Your task to perform on an android device: check the backup settings in the google photos Image 0: 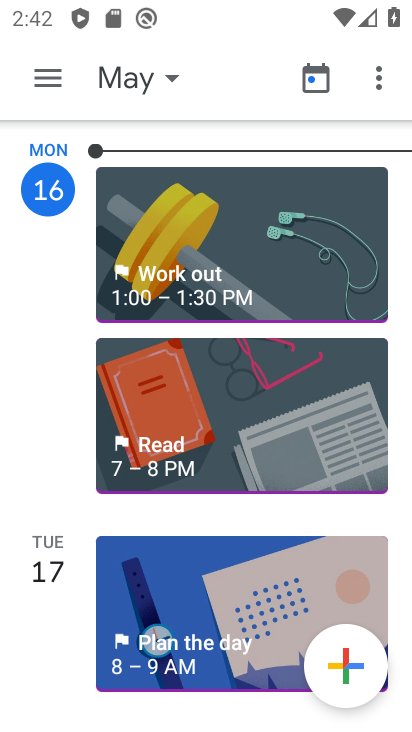
Step 0: press home button
Your task to perform on an android device: check the backup settings in the google photos Image 1: 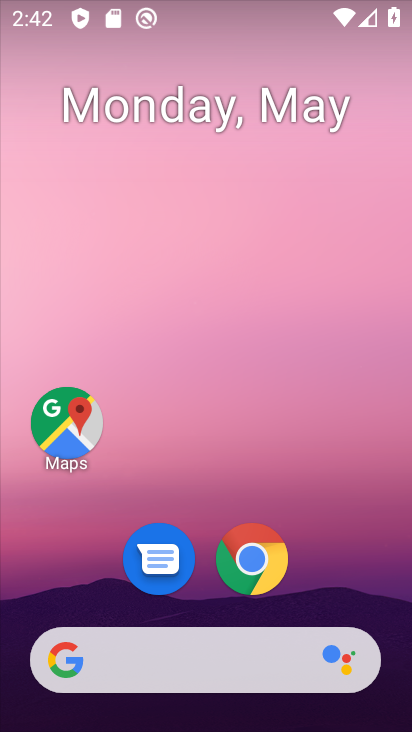
Step 1: drag from (211, 492) to (291, 186)
Your task to perform on an android device: check the backup settings in the google photos Image 2: 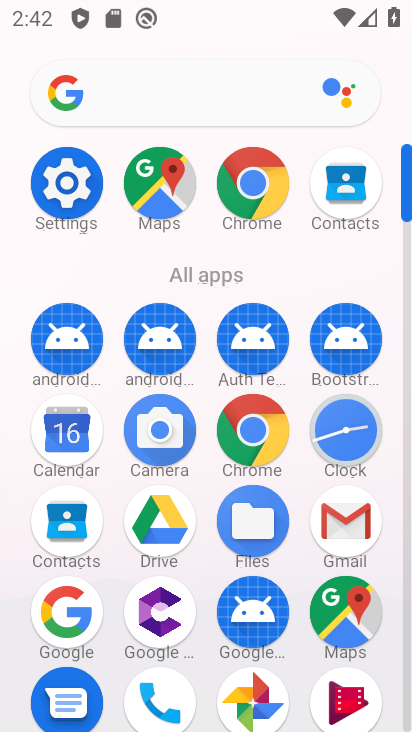
Step 2: click (264, 684)
Your task to perform on an android device: check the backup settings in the google photos Image 3: 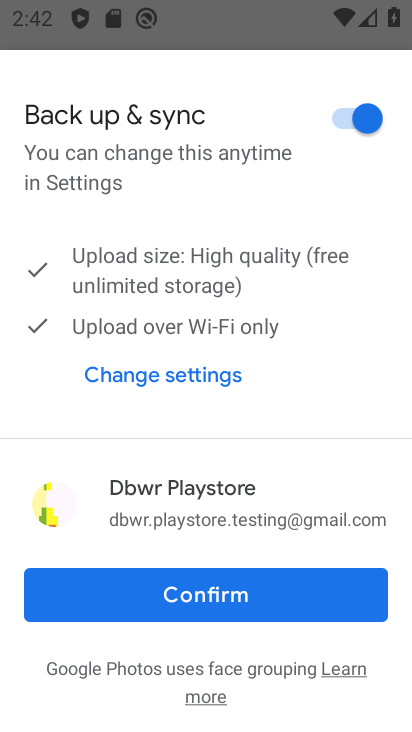
Step 3: click (260, 590)
Your task to perform on an android device: check the backup settings in the google photos Image 4: 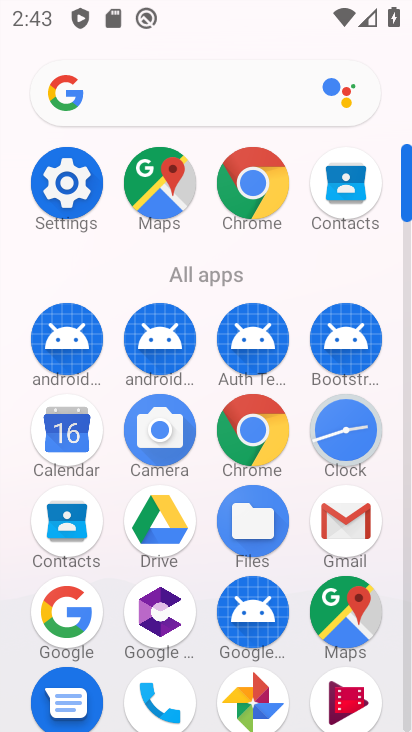
Step 4: click (271, 696)
Your task to perform on an android device: check the backup settings in the google photos Image 5: 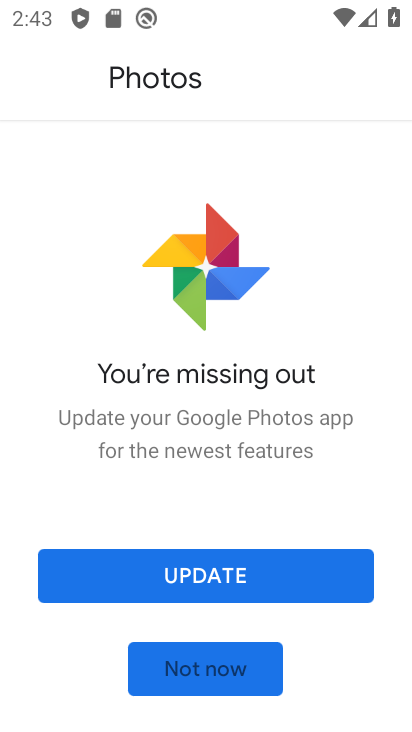
Step 5: click (236, 566)
Your task to perform on an android device: check the backup settings in the google photos Image 6: 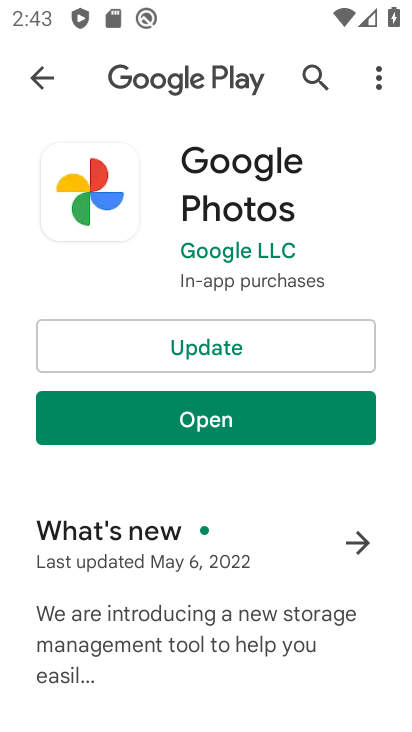
Step 6: click (229, 347)
Your task to perform on an android device: check the backup settings in the google photos Image 7: 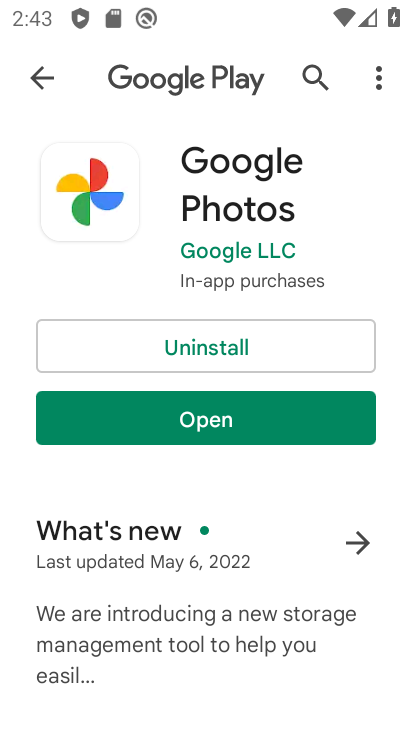
Step 7: click (309, 414)
Your task to perform on an android device: check the backup settings in the google photos Image 8: 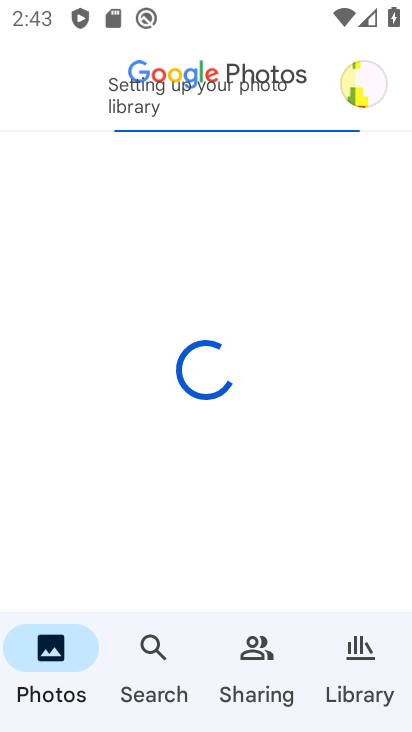
Step 8: click (309, 414)
Your task to perform on an android device: check the backup settings in the google photos Image 9: 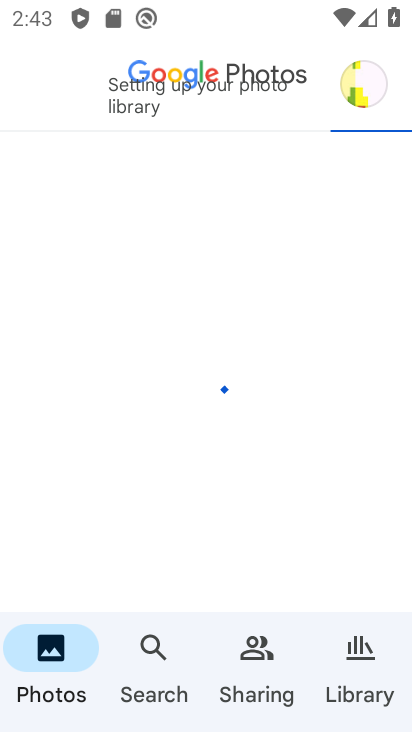
Step 9: click (356, 83)
Your task to perform on an android device: check the backup settings in the google photos Image 10: 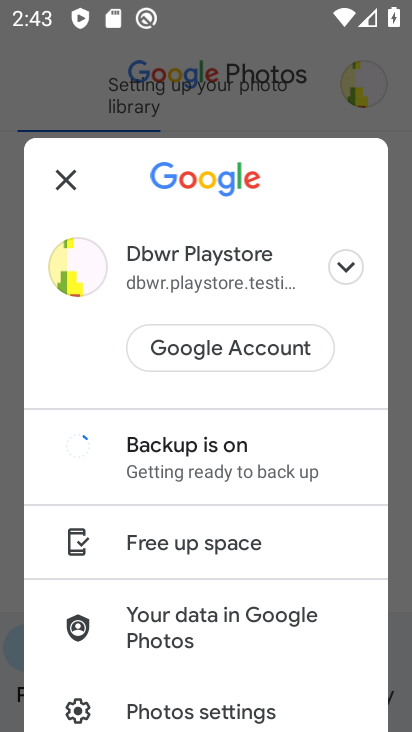
Step 10: click (293, 449)
Your task to perform on an android device: check the backup settings in the google photos Image 11: 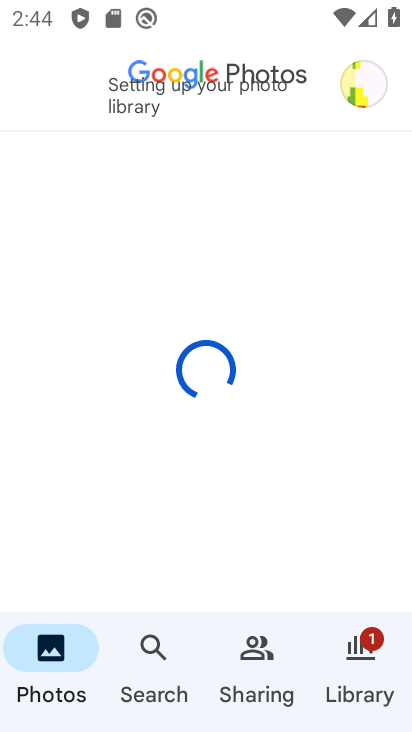
Step 11: click (293, 449)
Your task to perform on an android device: check the backup settings in the google photos Image 12: 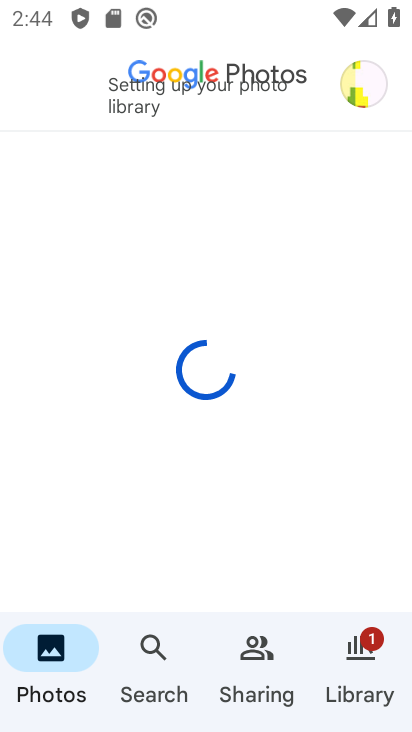
Step 12: click (339, 84)
Your task to perform on an android device: check the backup settings in the google photos Image 13: 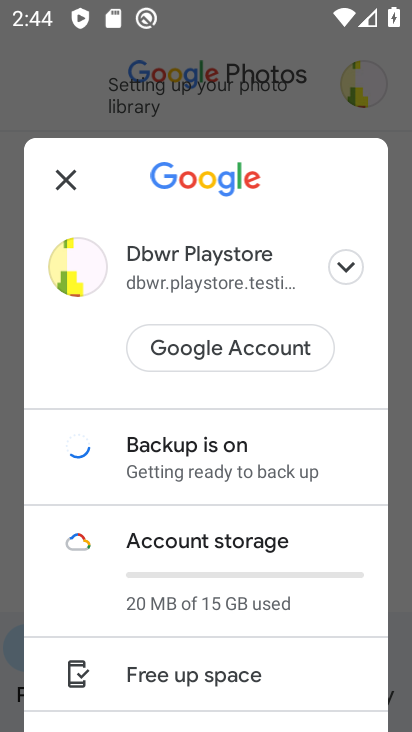
Step 13: drag from (276, 654) to (258, 308)
Your task to perform on an android device: check the backup settings in the google photos Image 14: 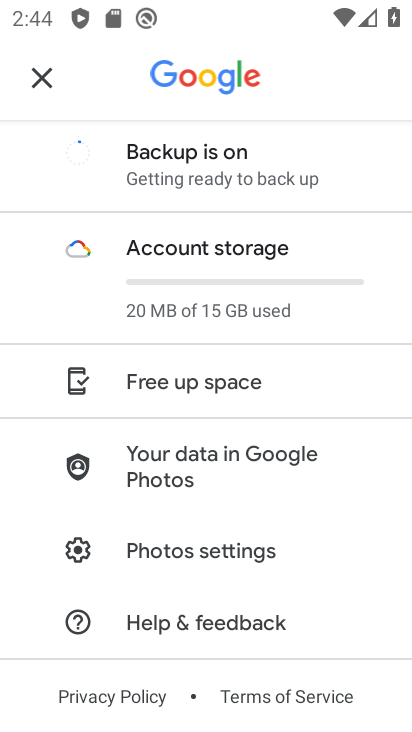
Step 14: click (261, 540)
Your task to perform on an android device: check the backup settings in the google photos Image 15: 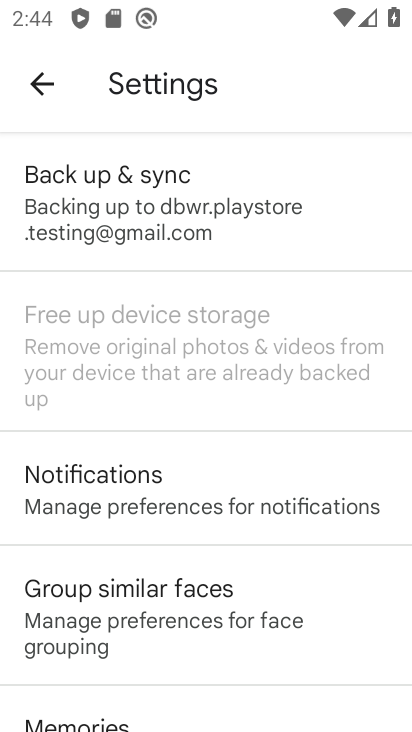
Step 15: click (249, 203)
Your task to perform on an android device: check the backup settings in the google photos Image 16: 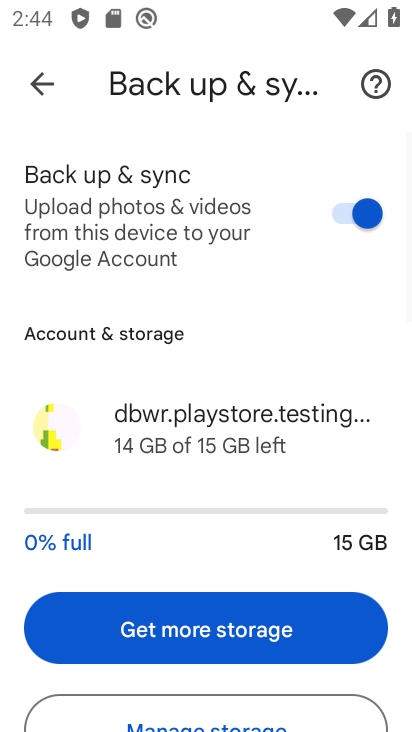
Step 16: drag from (259, 548) to (250, 296)
Your task to perform on an android device: check the backup settings in the google photos Image 17: 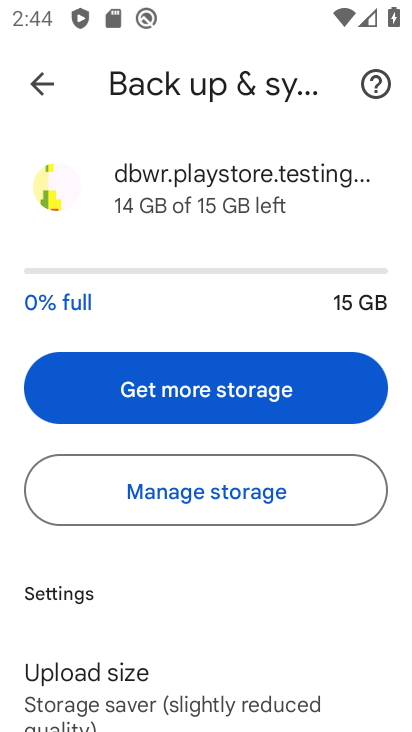
Step 17: click (290, 619)
Your task to perform on an android device: check the backup settings in the google photos Image 18: 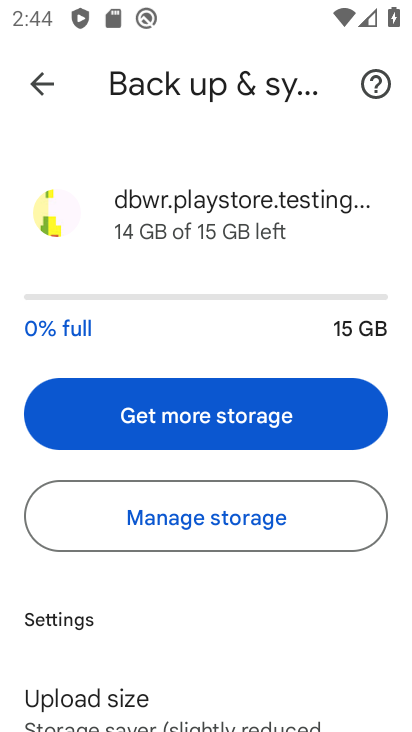
Step 18: task complete